Your task to perform on an android device: toggle improve location accuracy Image 0: 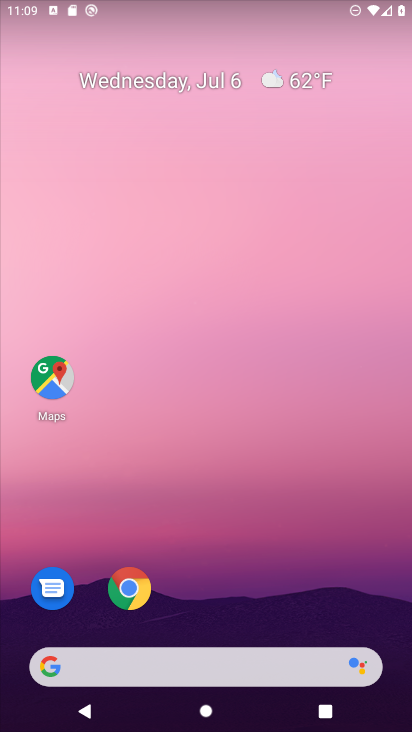
Step 0: drag from (345, 602) to (342, 50)
Your task to perform on an android device: toggle improve location accuracy Image 1: 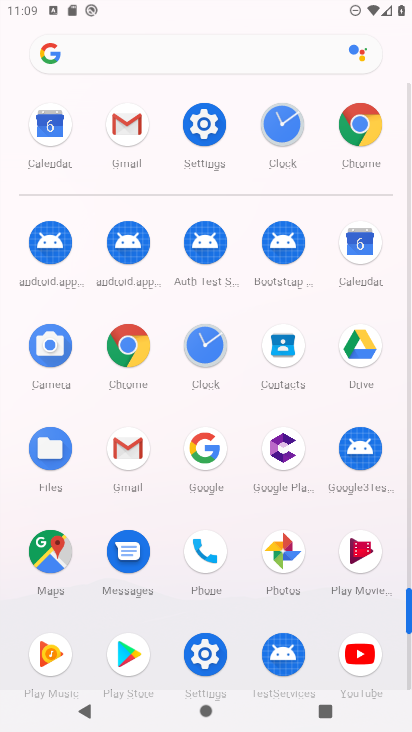
Step 1: click (203, 657)
Your task to perform on an android device: toggle improve location accuracy Image 2: 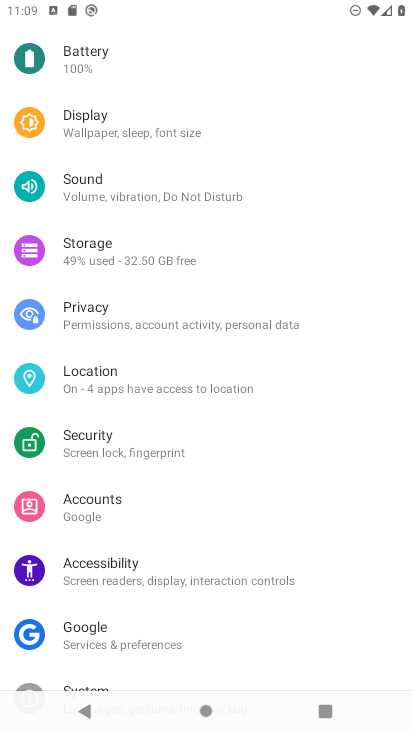
Step 2: click (101, 379)
Your task to perform on an android device: toggle improve location accuracy Image 3: 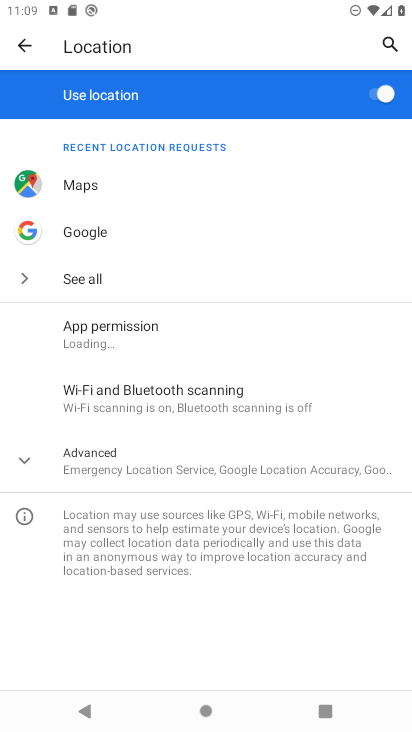
Step 3: click (91, 449)
Your task to perform on an android device: toggle improve location accuracy Image 4: 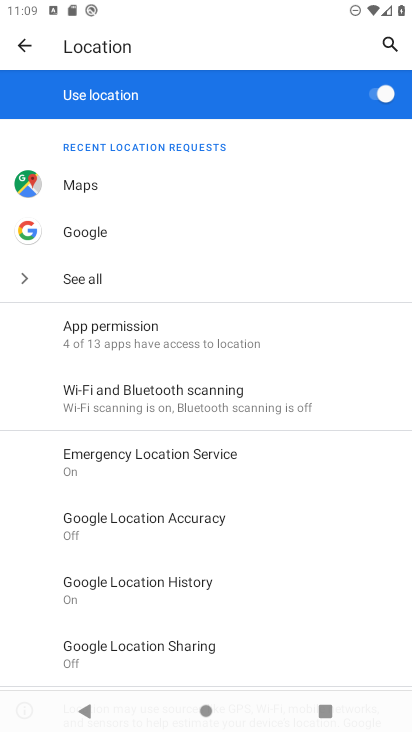
Step 4: click (100, 522)
Your task to perform on an android device: toggle improve location accuracy Image 5: 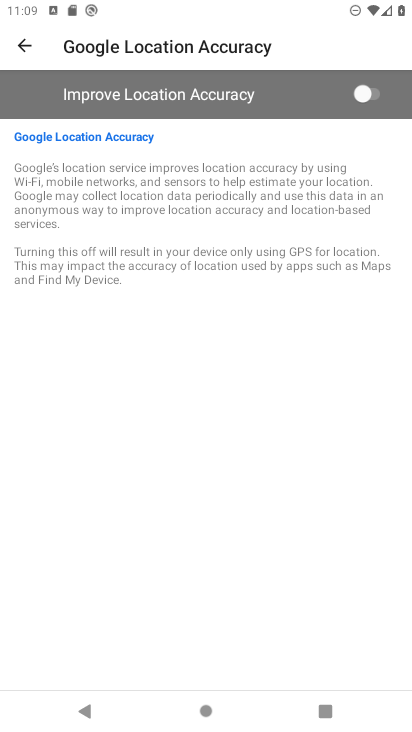
Step 5: click (370, 91)
Your task to perform on an android device: toggle improve location accuracy Image 6: 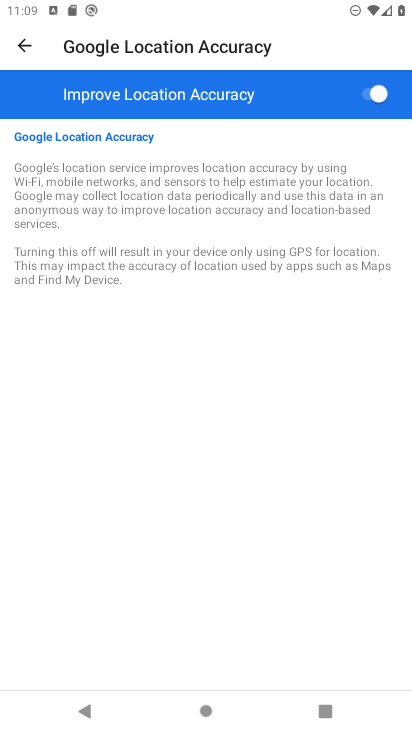
Step 6: task complete